Your task to perform on an android device: Go to Amazon Image 0: 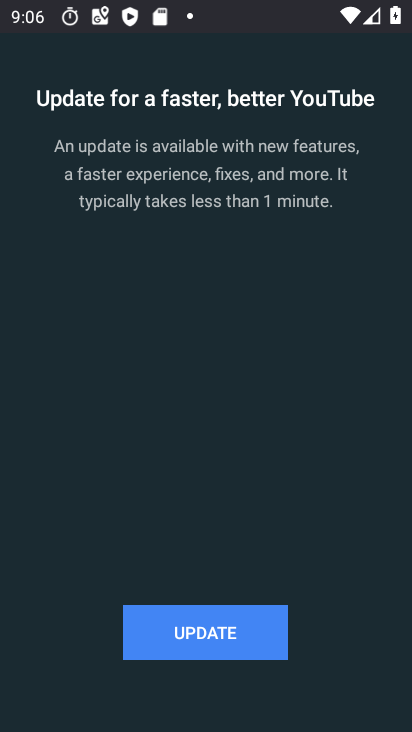
Step 0: press home button
Your task to perform on an android device: Go to Amazon Image 1: 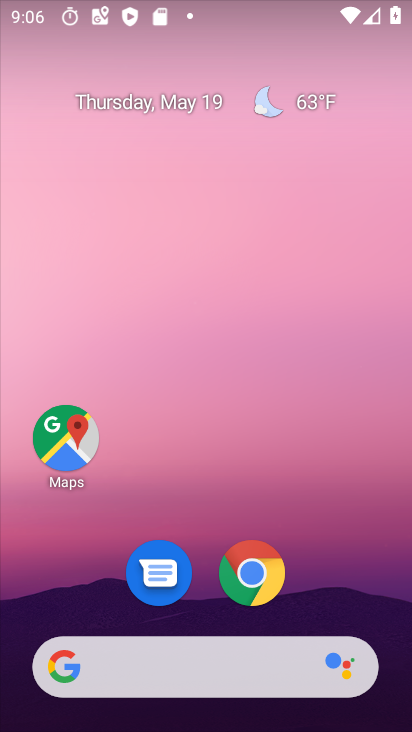
Step 1: click (259, 569)
Your task to perform on an android device: Go to Amazon Image 2: 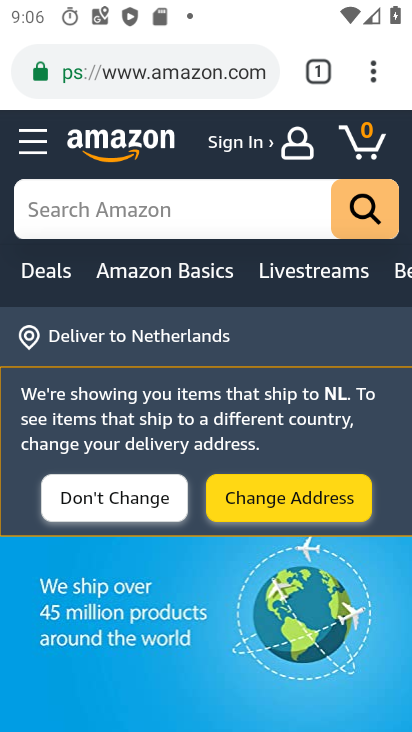
Step 2: task complete